Your task to perform on an android device: Go to Google maps Image 0: 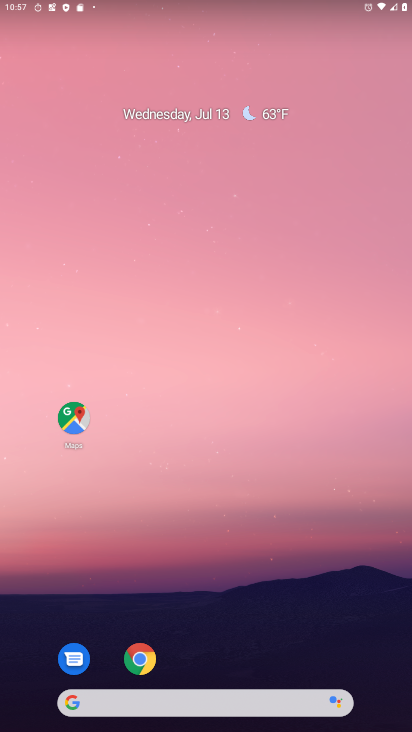
Step 0: drag from (277, 642) to (259, 169)
Your task to perform on an android device: Go to Google maps Image 1: 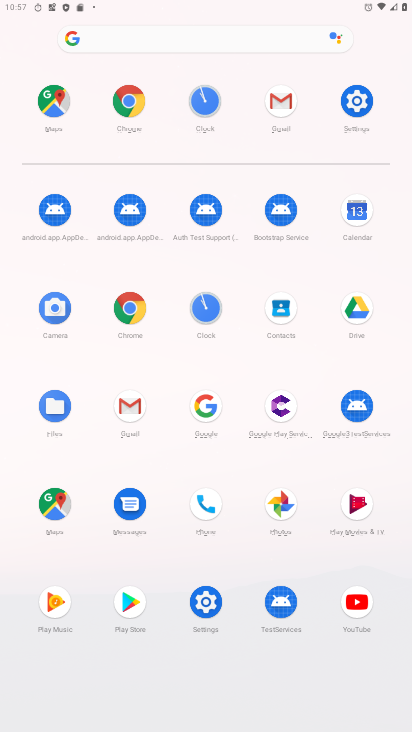
Step 1: click (52, 508)
Your task to perform on an android device: Go to Google maps Image 2: 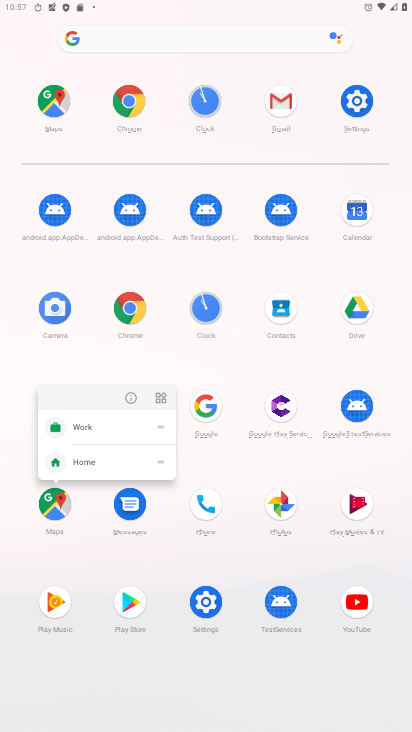
Step 2: click (52, 508)
Your task to perform on an android device: Go to Google maps Image 3: 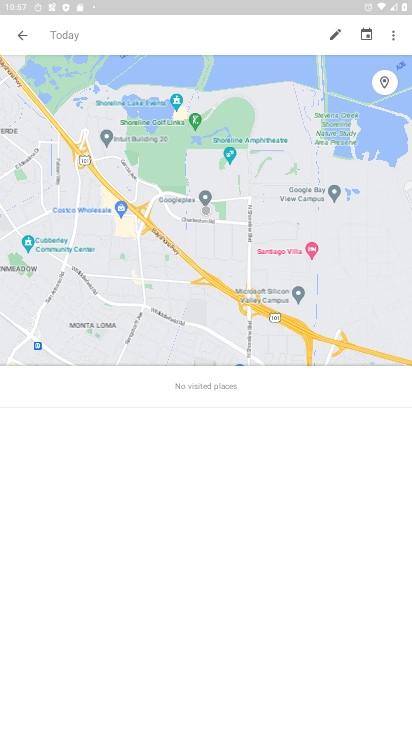
Step 3: task complete